Your task to perform on an android device: change the clock style Image 0: 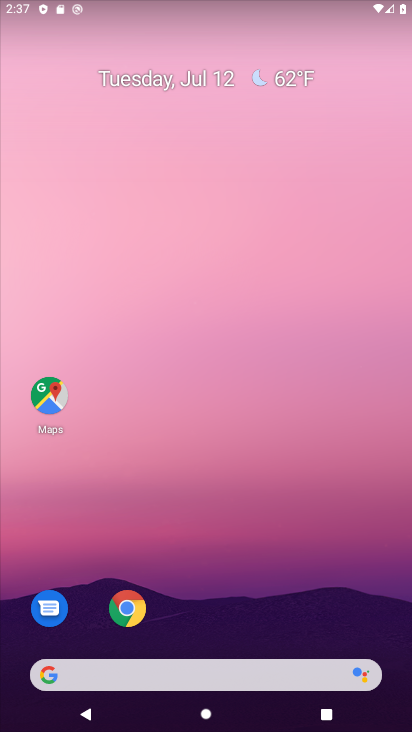
Step 0: press home button
Your task to perform on an android device: change the clock style Image 1: 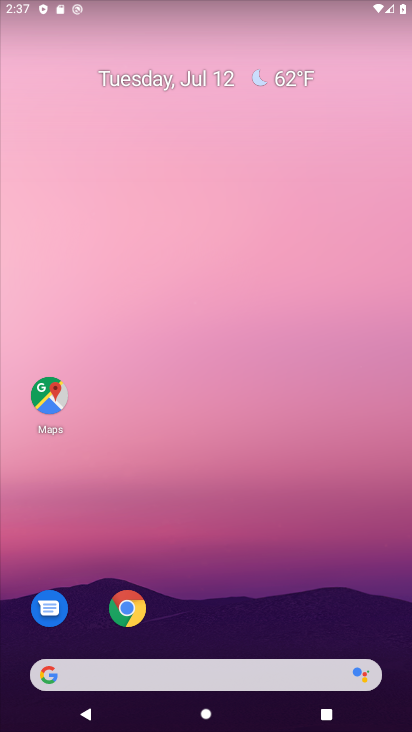
Step 1: drag from (189, 669) to (319, 166)
Your task to perform on an android device: change the clock style Image 2: 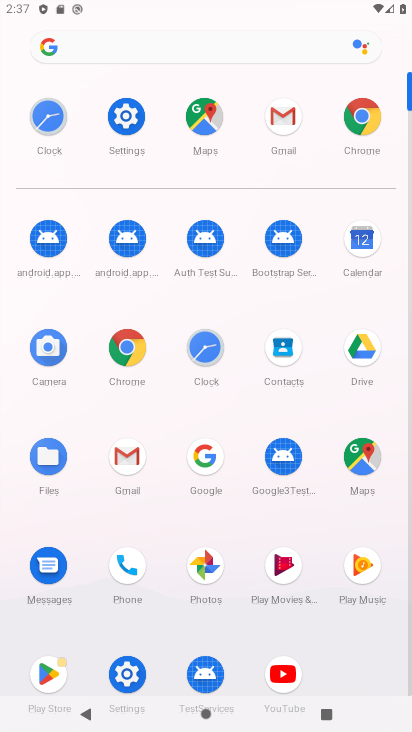
Step 2: click (208, 343)
Your task to perform on an android device: change the clock style Image 3: 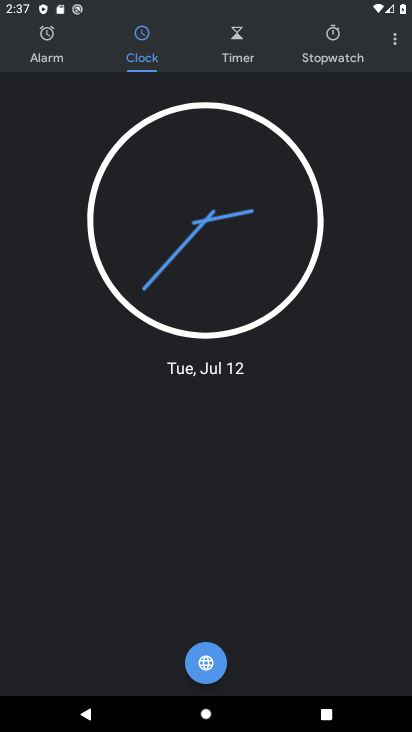
Step 3: click (399, 38)
Your task to perform on an android device: change the clock style Image 4: 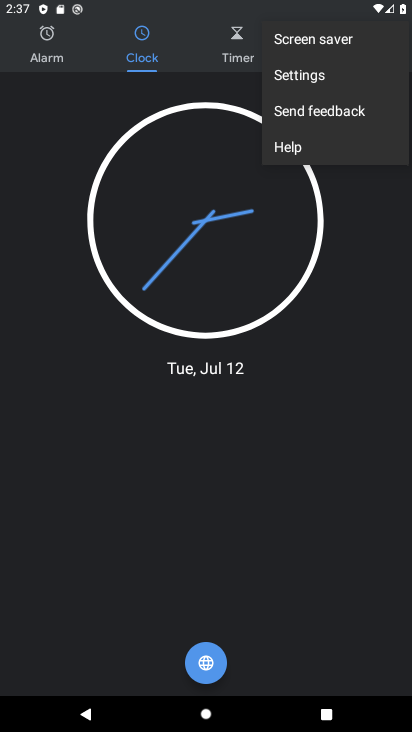
Step 4: click (300, 71)
Your task to perform on an android device: change the clock style Image 5: 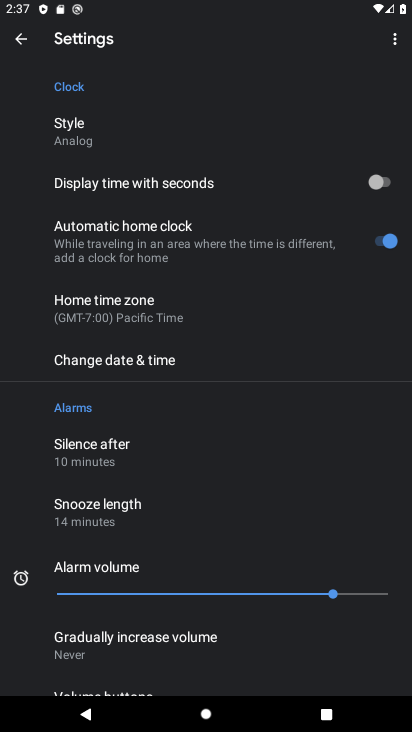
Step 5: click (88, 140)
Your task to perform on an android device: change the clock style Image 6: 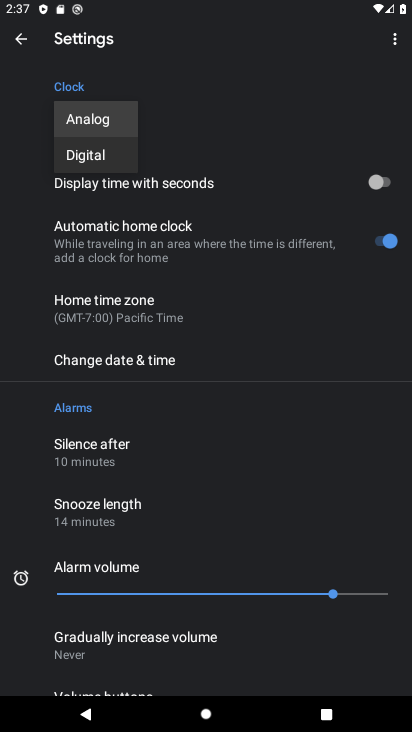
Step 6: click (82, 151)
Your task to perform on an android device: change the clock style Image 7: 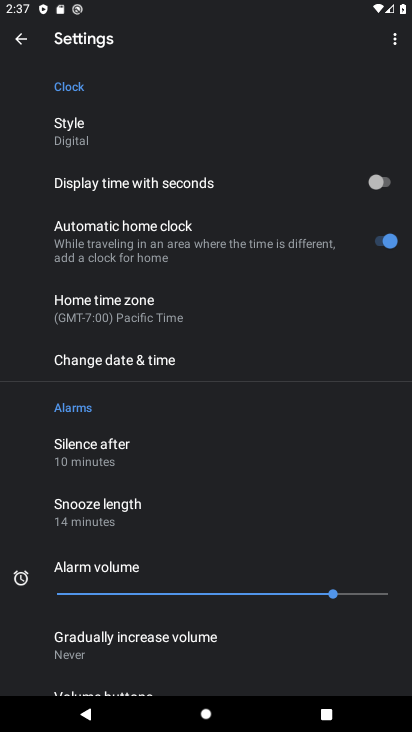
Step 7: task complete